Your task to perform on an android device: change the clock style Image 0: 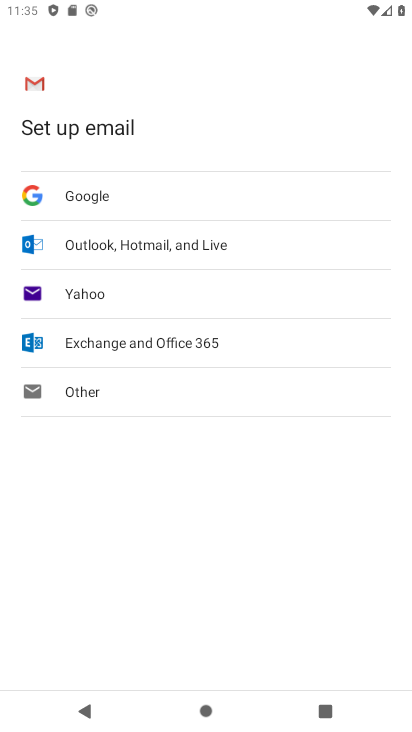
Step 0: press home button
Your task to perform on an android device: change the clock style Image 1: 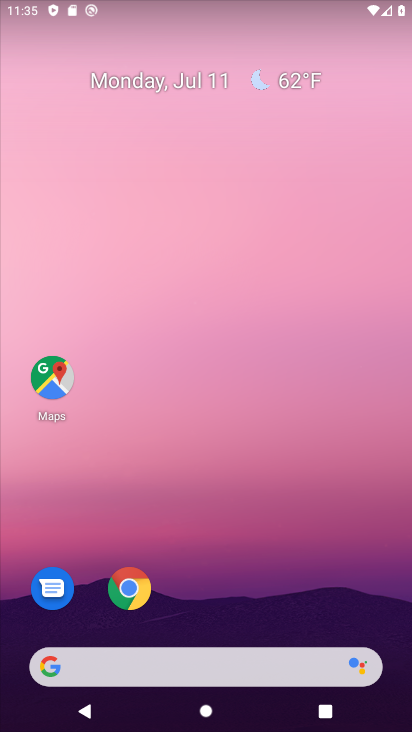
Step 1: click (209, 232)
Your task to perform on an android device: change the clock style Image 2: 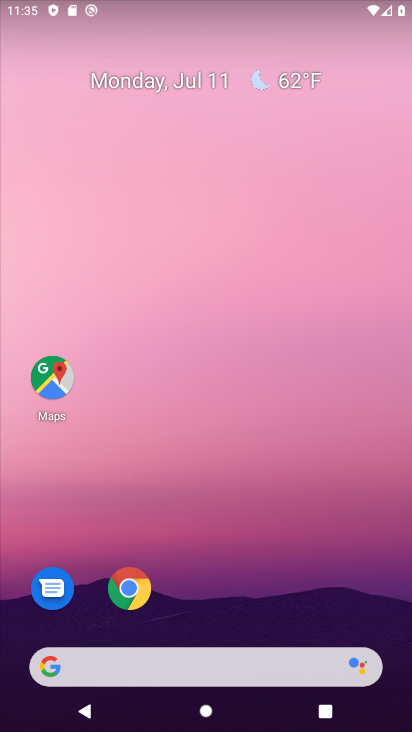
Step 2: click (184, 47)
Your task to perform on an android device: change the clock style Image 3: 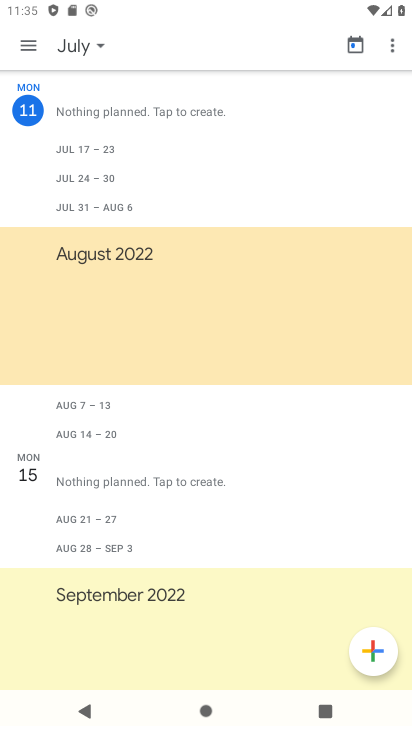
Step 3: press home button
Your task to perform on an android device: change the clock style Image 4: 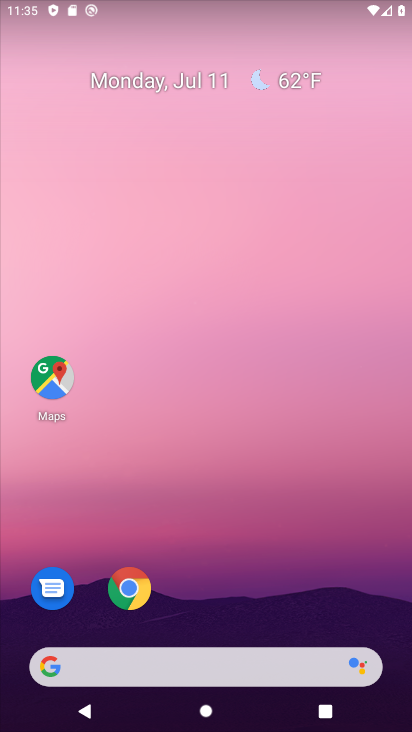
Step 4: drag from (211, 614) to (151, 115)
Your task to perform on an android device: change the clock style Image 5: 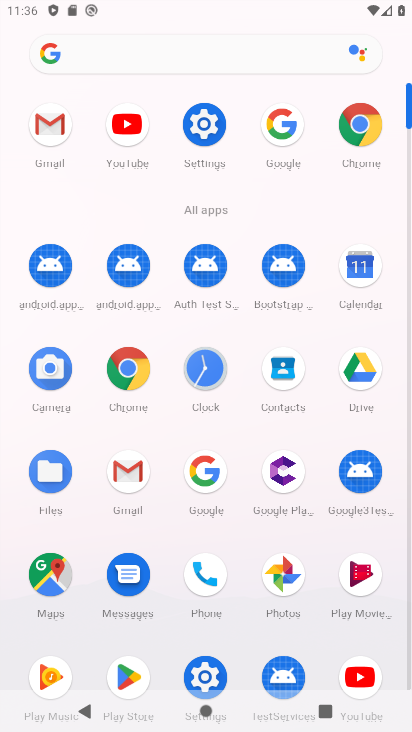
Step 5: click (202, 375)
Your task to perform on an android device: change the clock style Image 6: 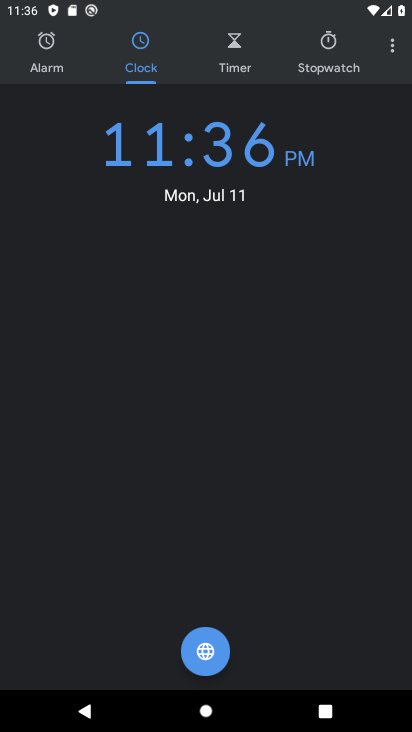
Step 6: click (394, 47)
Your task to perform on an android device: change the clock style Image 7: 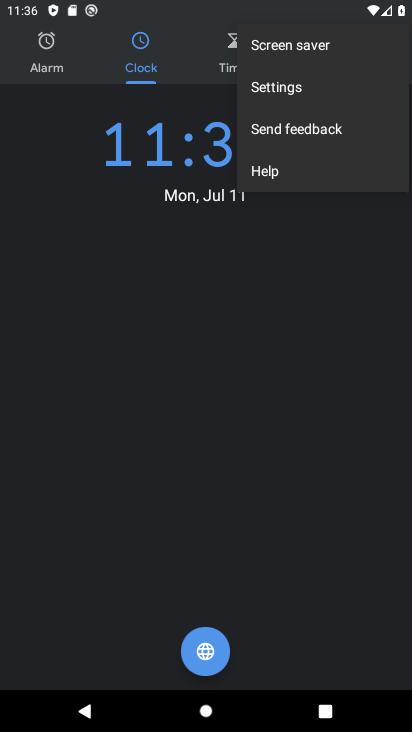
Step 7: click (280, 81)
Your task to perform on an android device: change the clock style Image 8: 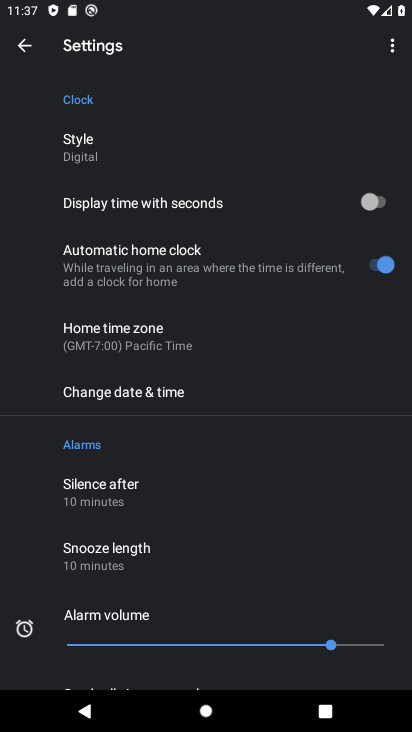
Step 8: click (88, 144)
Your task to perform on an android device: change the clock style Image 9: 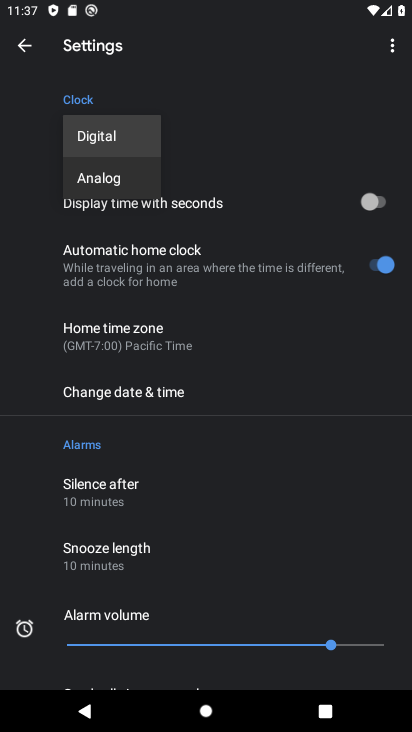
Step 9: click (107, 190)
Your task to perform on an android device: change the clock style Image 10: 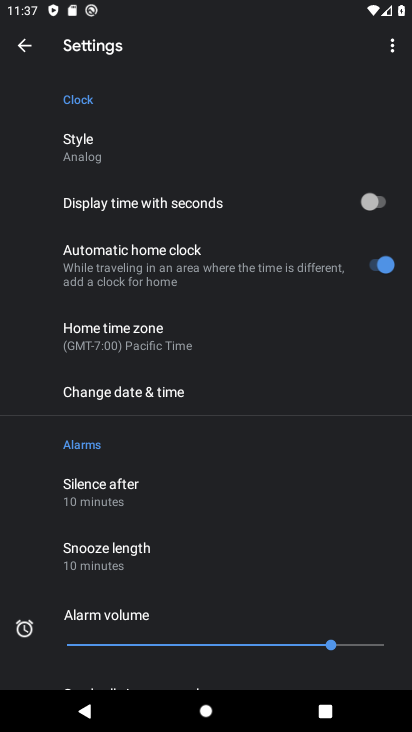
Step 10: task complete